Your task to perform on an android device: Open settings Image 0: 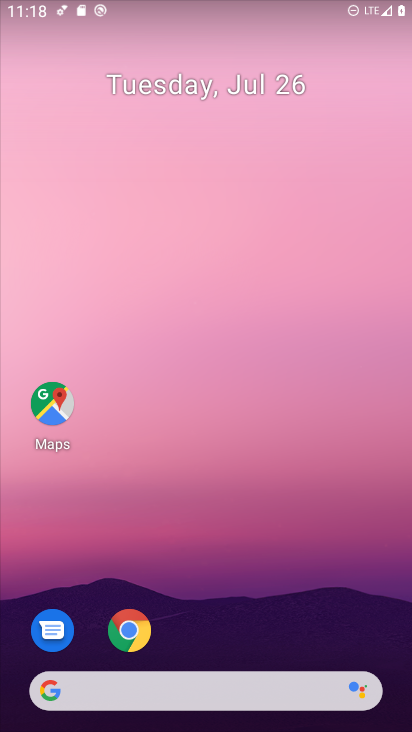
Step 0: drag from (243, 642) to (251, 26)
Your task to perform on an android device: Open settings Image 1: 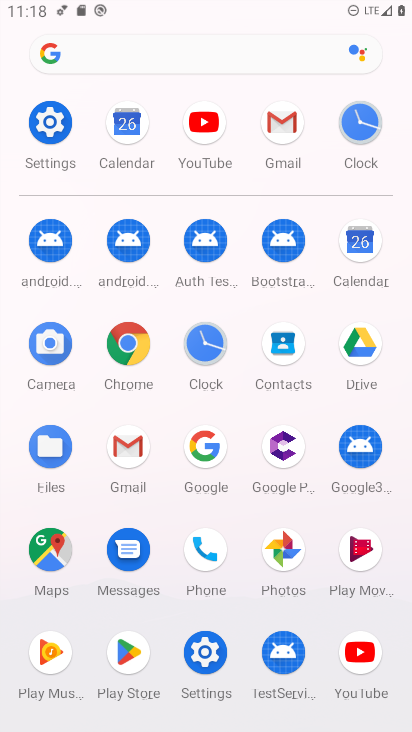
Step 1: click (203, 651)
Your task to perform on an android device: Open settings Image 2: 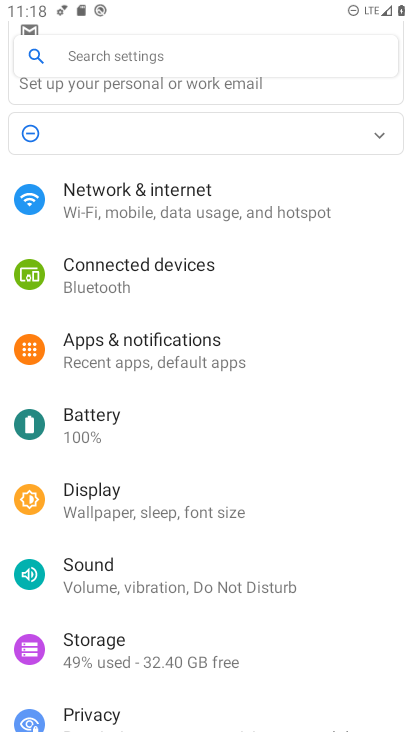
Step 2: task complete